Your task to perform on an android device: Clear the shopping cart on costco.com. Add "razer nari" to the cart on costco.com Image 0: 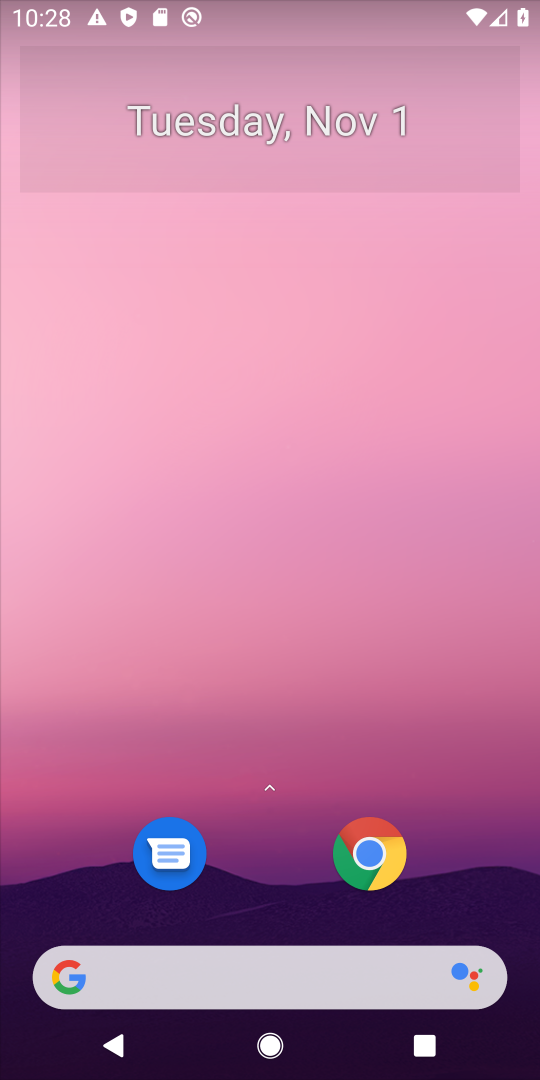
Step 0: click (254, 983)
Your task to perform on an android device: Clear the shopping cart on costco.com. Add "razer nari" to the cart on costco.com Image 1: 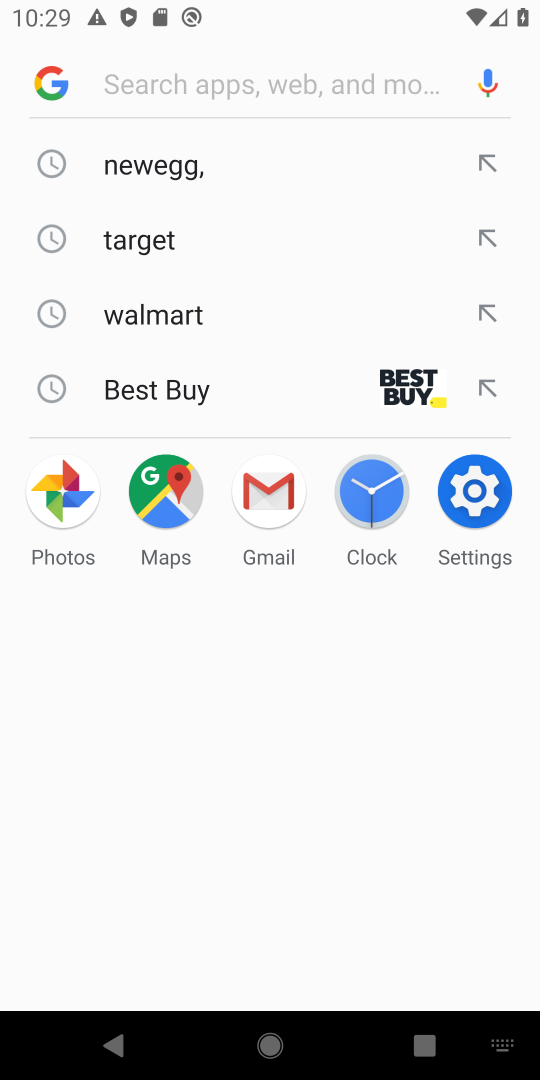
Step 1: type "costco.com"
Your task to perform on an android device: Clear the shopping cart on costco.com. Add "razer nari" to the cart on costco.com Image 2: 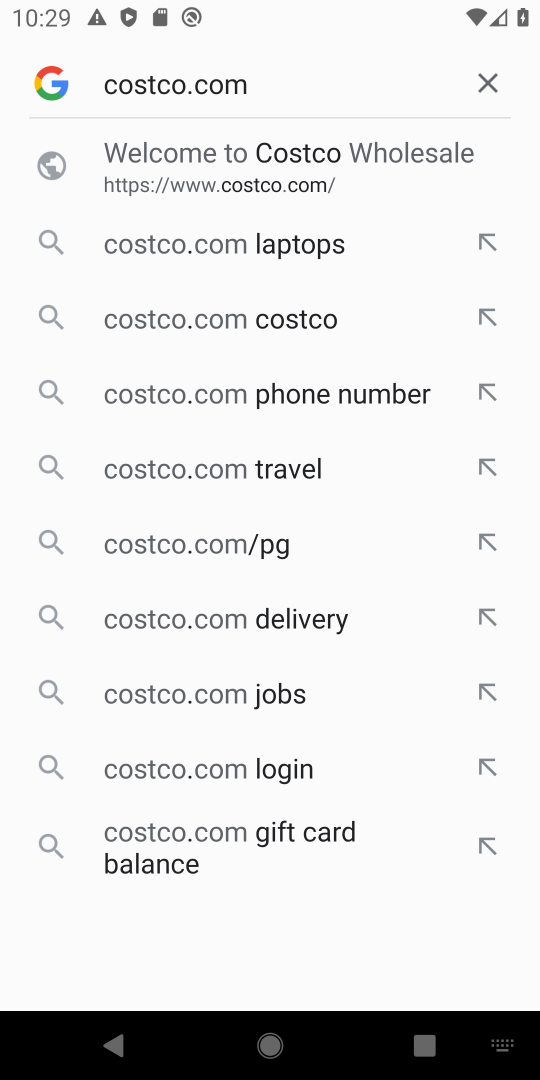
Step 2: click (178, 181)
Your task to perform on an android device: Clear the shopping cart on costco.com. Add "razer nari" to the cart on costco.com Image 3: 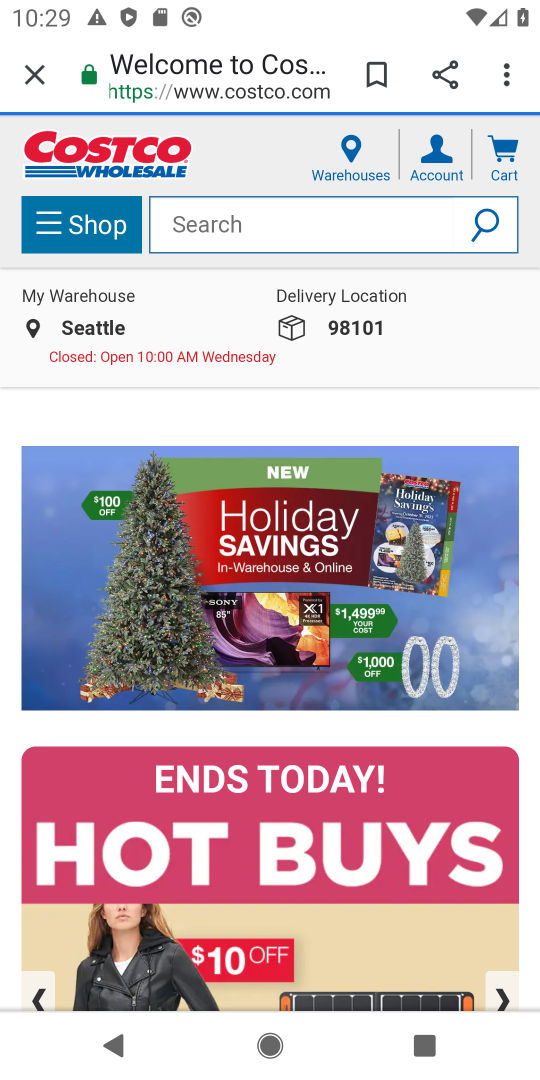
Step 3: click (194, 229)
Your task to perform on an android device: Clear the shopping cart on costco.com. Add "razer nari" to the cart on costco.com Image 4: 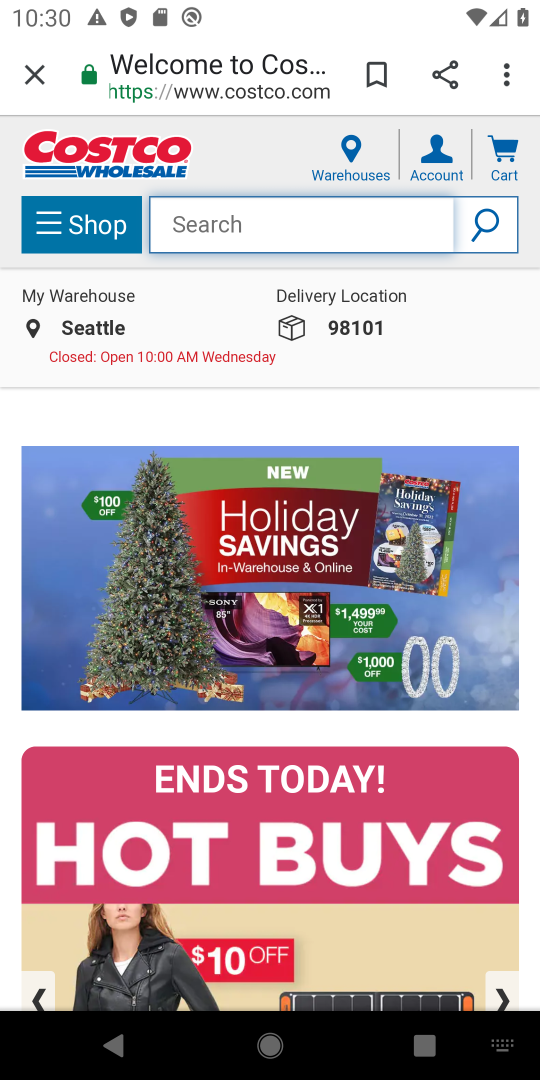
Step 4: type "razer nari"
Your task to perform on an android device: Clear the shopping cart on costco.com. Add "razer nari" to the cart on costco.com Image 5: 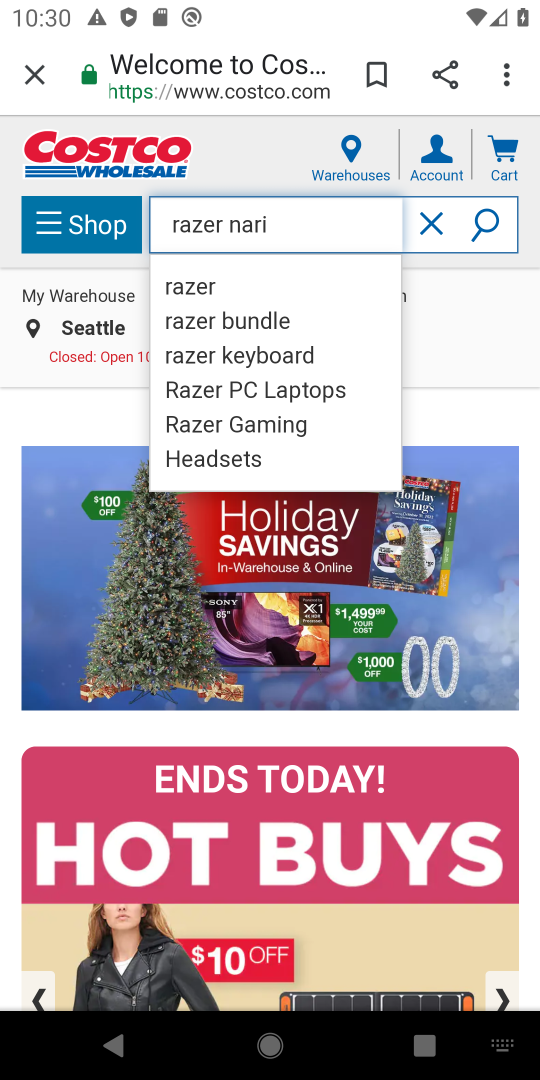
Step 5: click (477, 241)
Your task to perform on an android device: Clear the shopping cart on costco.com. Add "razer nari" to the cart on costco.com Image 6: 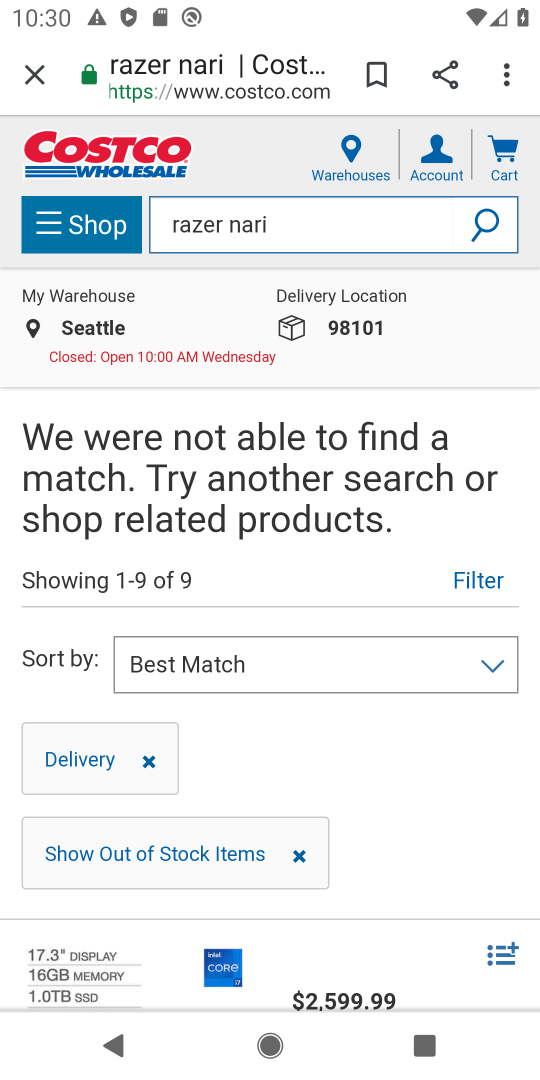
Step 6: drag from (353, 765) to (356, 415)
Your task to perform on an android device: Clear the shopping cart on costco.com. Add "razer nari" to the cart on costco.com Image 7: 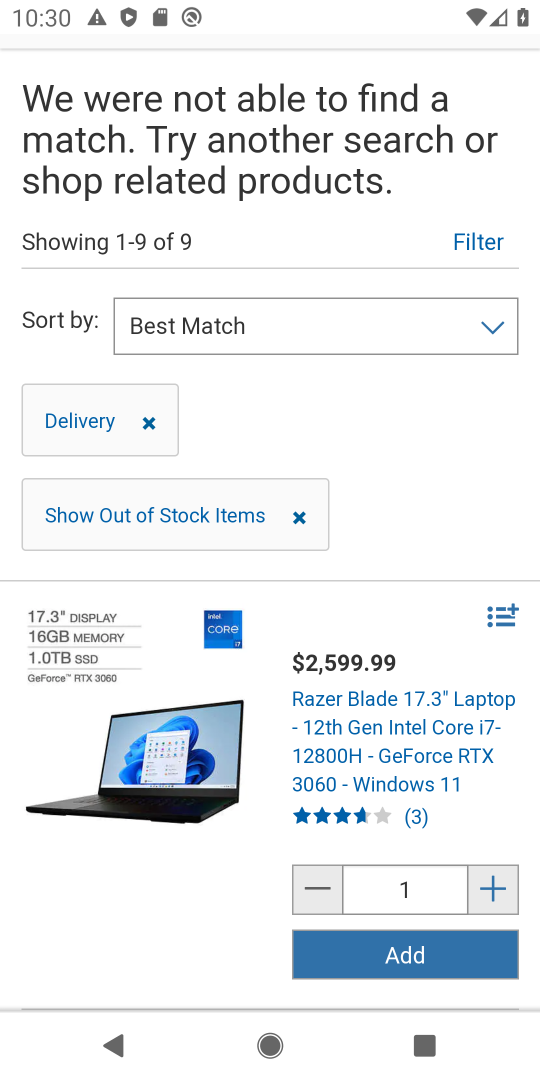
Step 7: click (389, 958)
Your task to perform on an android device: Clear the shopping cart on costco.com. Add "razer nari" to the cart on costco.com Image 8: 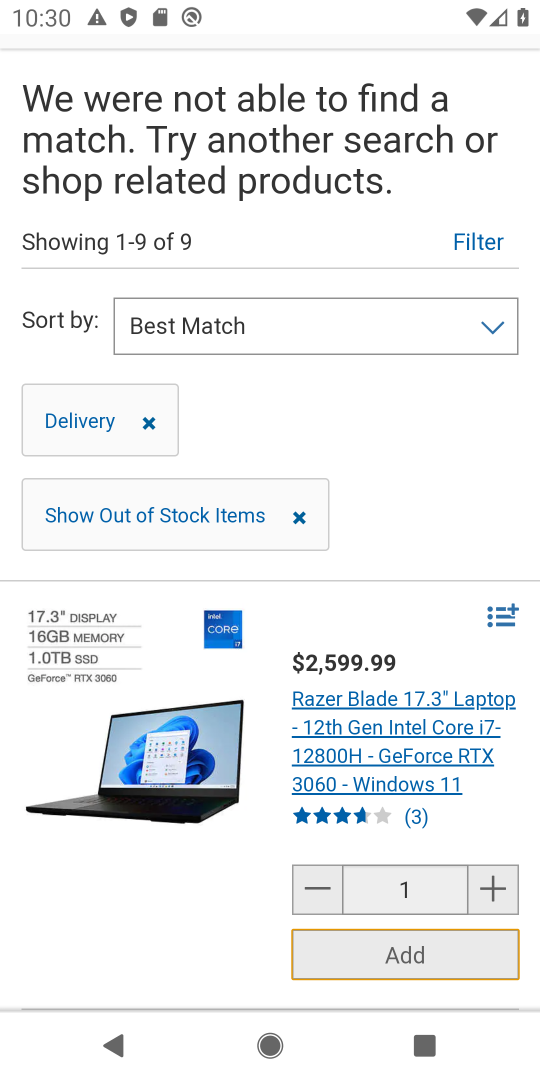
Step 8: task complete